Your task to perform on an android device: turn on showing notifications on the lock screen Image 0: 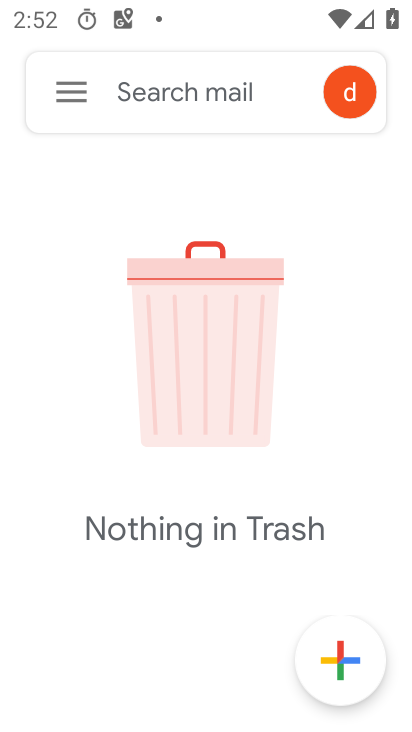
Step 0: press home button
Your task to perform on an android device: turn on showing notifications on the lock screen Image 1: 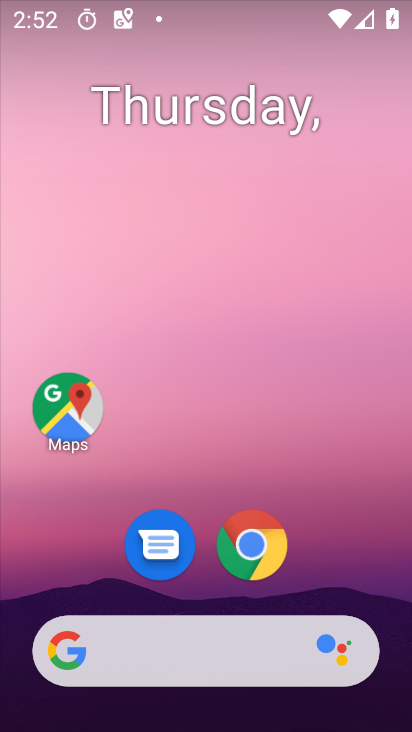
Step 1: drag from (222, 714) to (246, 165)
Your task to perform on an android device: turn on showing notifications on the lock screen Image 2: 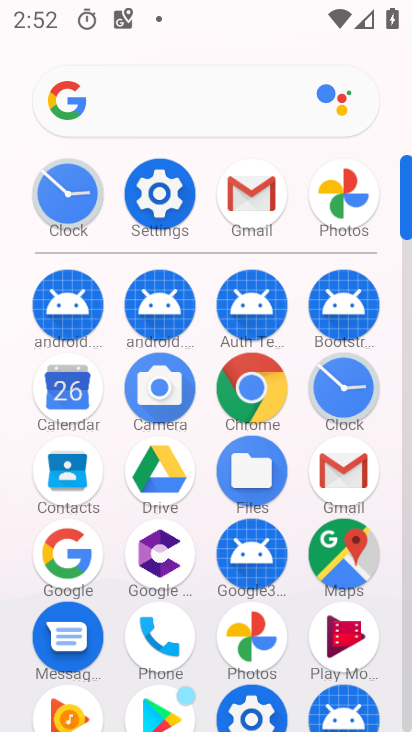
Step 2: click (162, 195)
Your task to perform on an android device: turn on showing notifications on the lock screen Image 3: 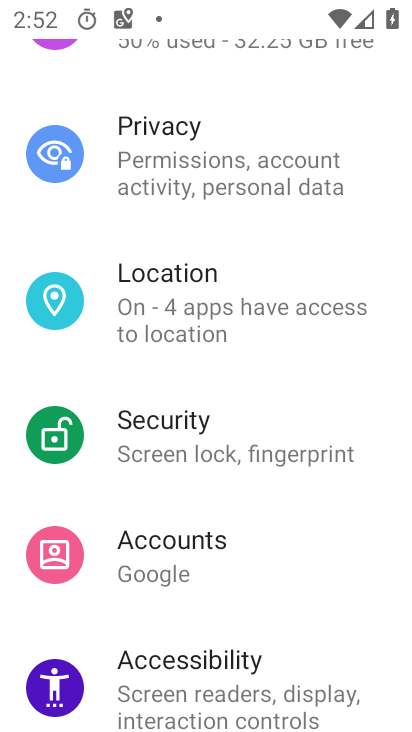
Step 3: drag from (262, 161) to (248, 571)
Your task to perform on an android device: turn on showing notifications on the lock screen Image 4: 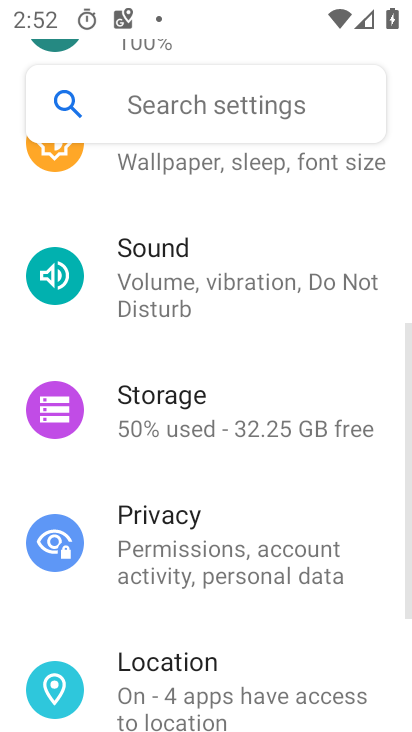
Step 4: drag from (238, 459) to (238, 596)
Your task to perform on an android device: turn on showing notifications on the lock screen Image 5: 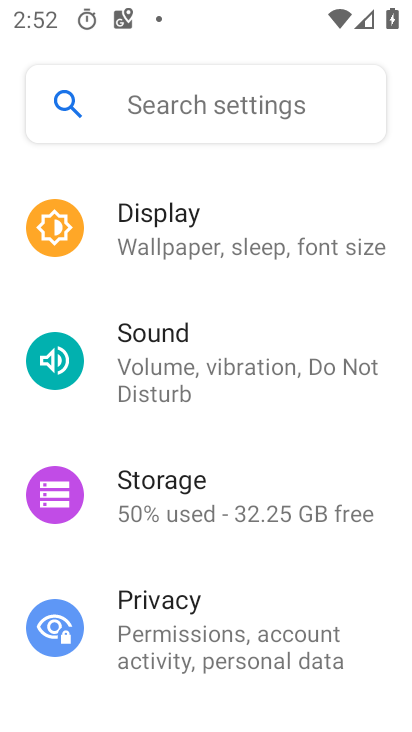
Step 5: drag from (231, 186) to (226, 566)
Your task to perform on an android device: turn on showing notifications on the lock screen Image 6: 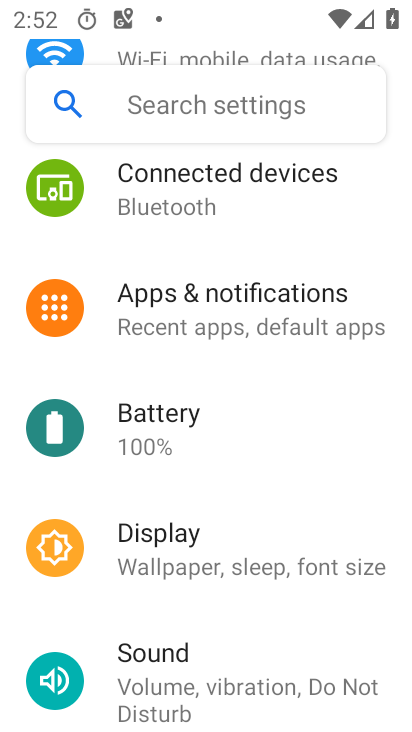
Step 6: click (206, 311)
Your task to perform on an android device: turn on showing notifications on the lock screen Image 7: 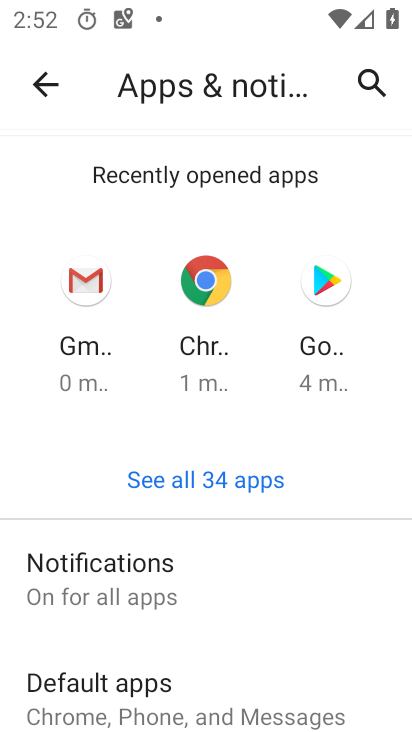
Step 7: drag from (214, 675) to (217, 325)
Your task to perform on an android device: turn on showing notifications on the lock screen Image 8: 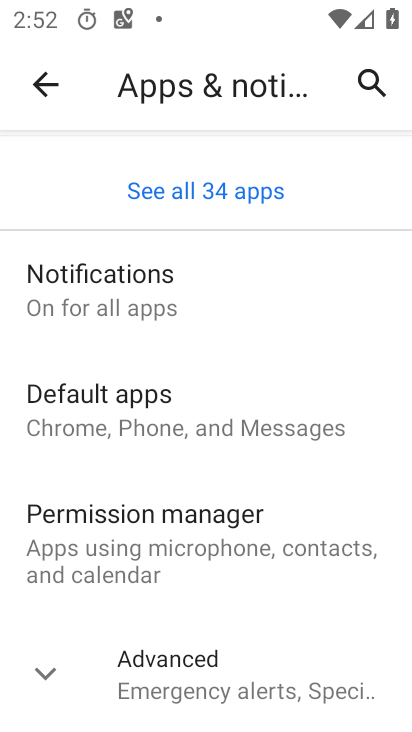
Step 8: click (90, 290)
Your task to perform on an android device: turn on showing notifications on the lock screen Image 9: 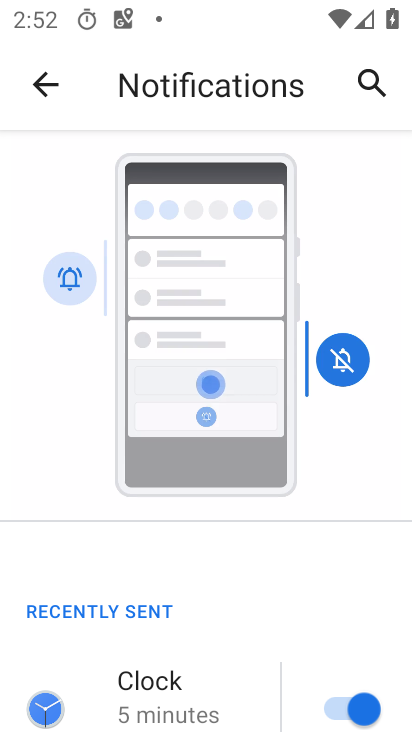
Step 9: task complete